Your task to perform on an android device: find which apps use the phone's location Image 0: 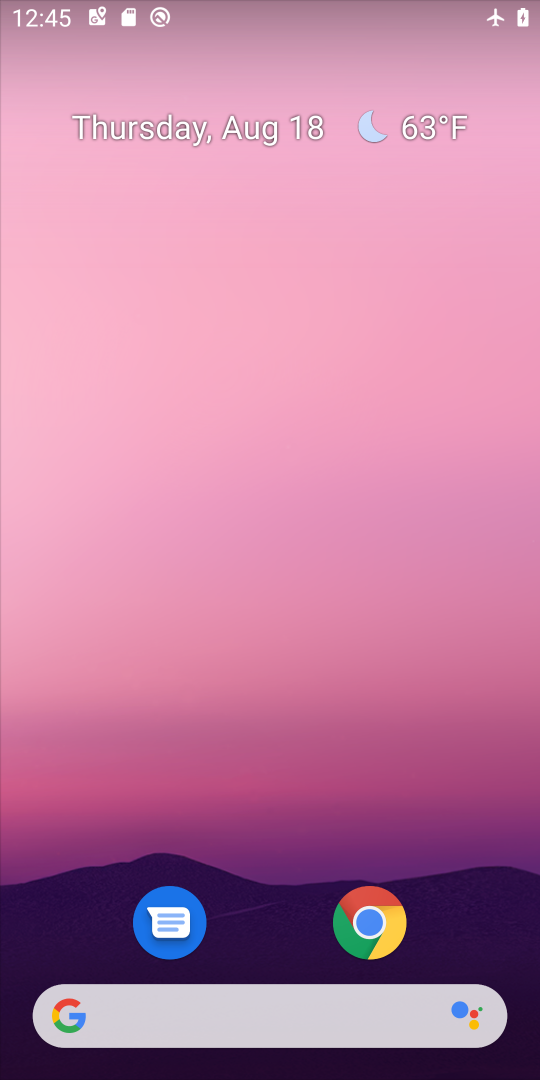
Step 0: drag from (259, 945) to (229, 355)
Your task to perform on an android device: find which apps use the phone's location Image 1: 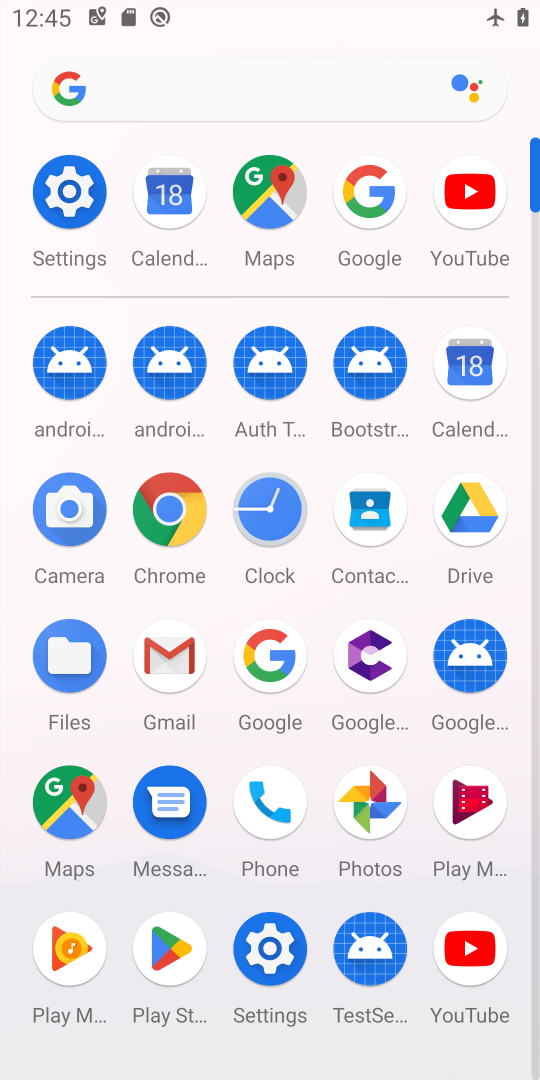
Step 1: click (68, 183)
Your task to perform on an android device: find which apps use the phone's location Image 2: 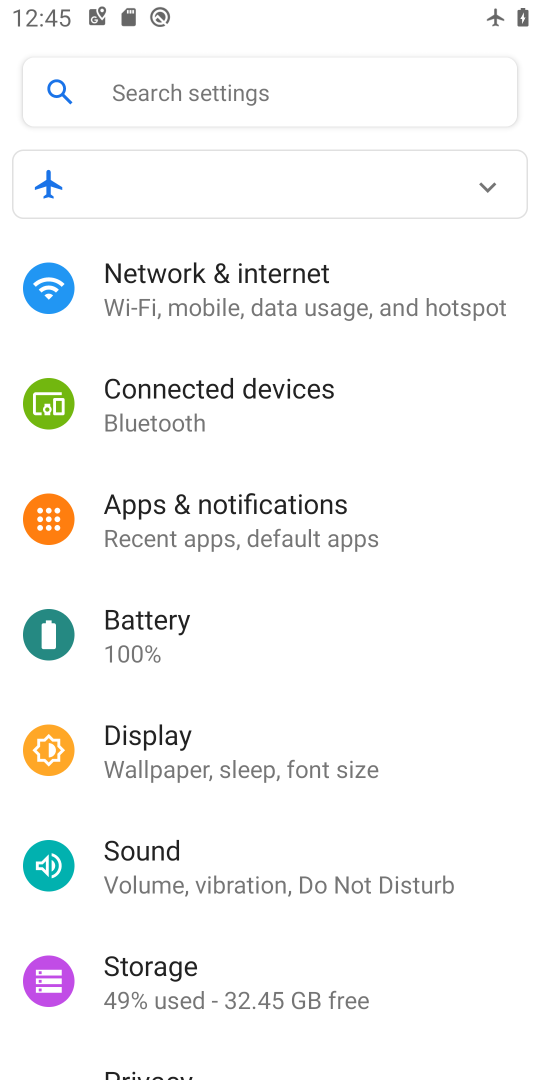
Step 2: drag from (256, 924) to (233, 598)
Your task to perform on an android device: find which apps use the phone's location Image 3: 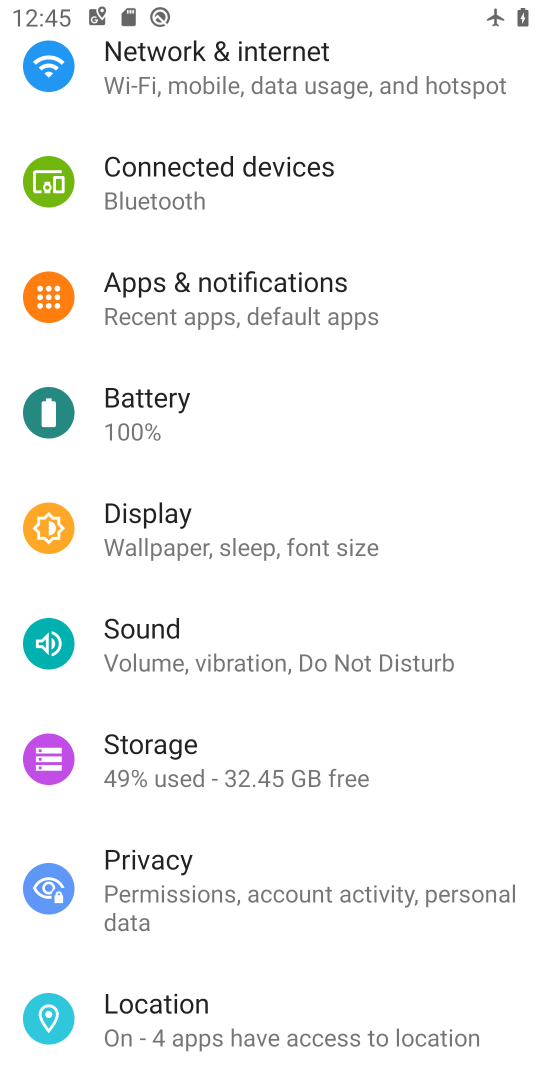
Step 3: click (160, 994)
Your task to perform on an android device: find which apps use the phone's location Image 4: 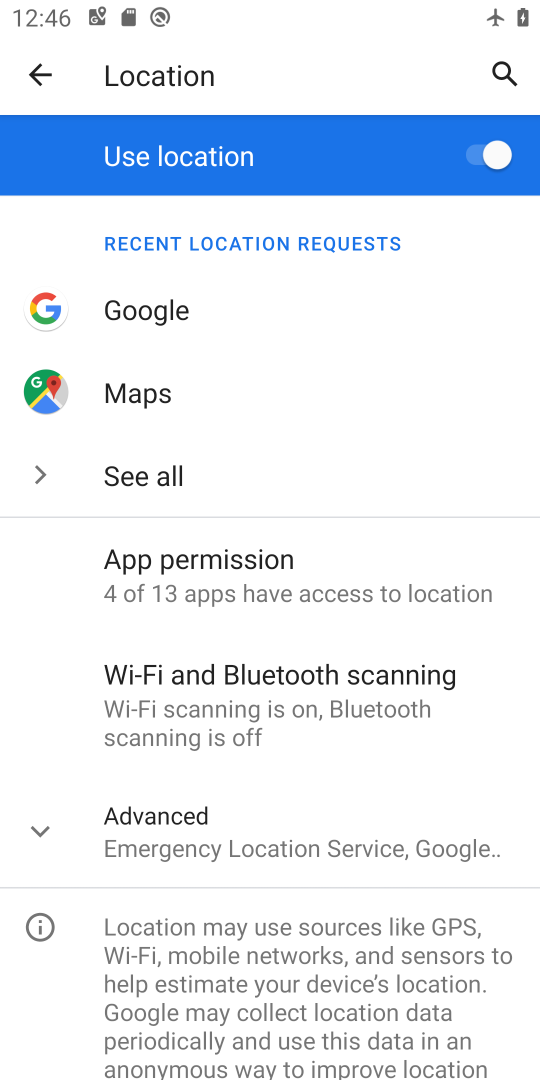
Step 4: click (149, 471)
Your task to perform on an android device: find which apps use the phone's location Image 5: 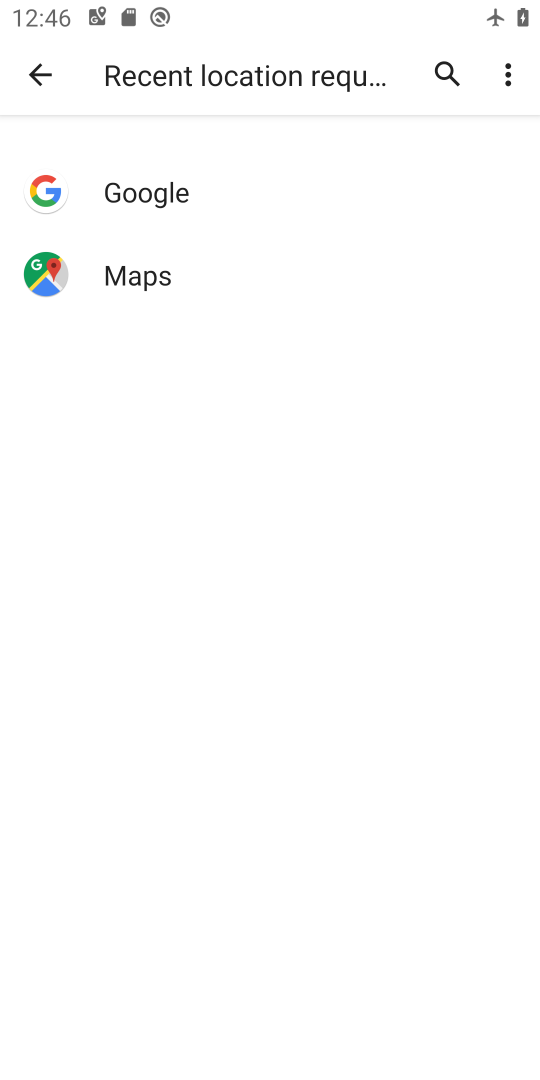
Step 5: task complete